Your task to perform on an android device: see tabs open on other devices in the chrome app Image 0: 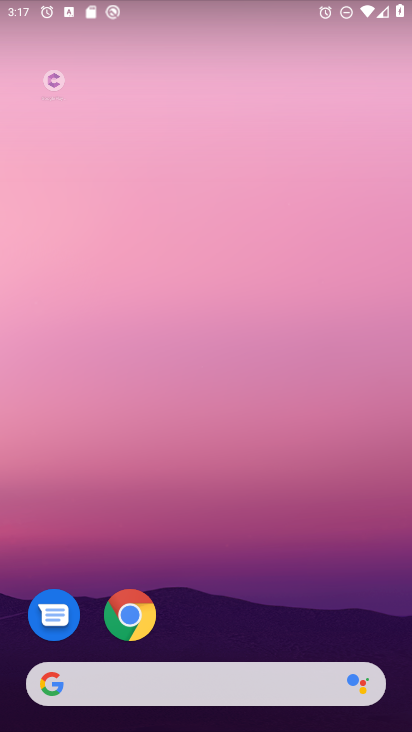
Step 0: click (131, 614)
Your task to perform on an android device: see tabs open on other devices in the chrome app Image 1: 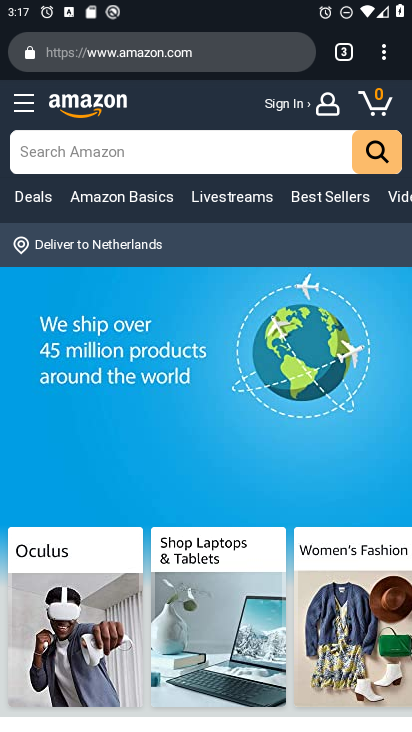
Step 1: click (383, 61)
Your task to perform on an android device: see tabs open on other devices in the chrome app Image 2: 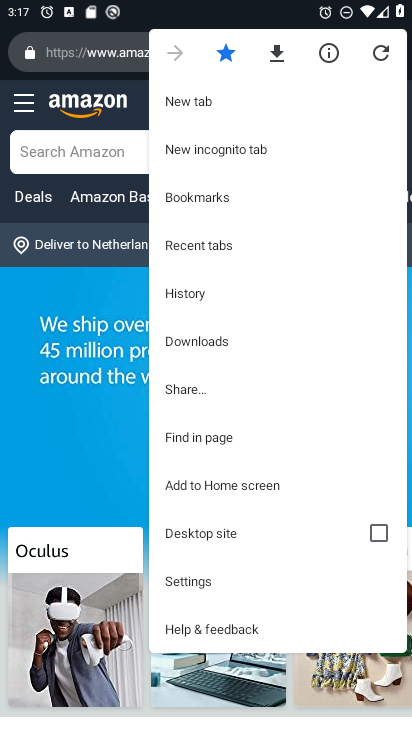
Step 2: click (189, 246)
Your task to perform on an android device: see tabs open on other devices in the chrome app Image 3: 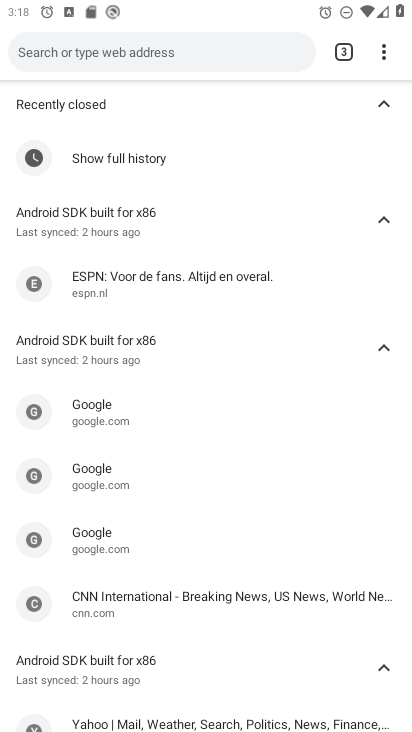
Step 3: task complete